Your task to perform on an android device: see tabs open on other devices in the chrome app Image 0: 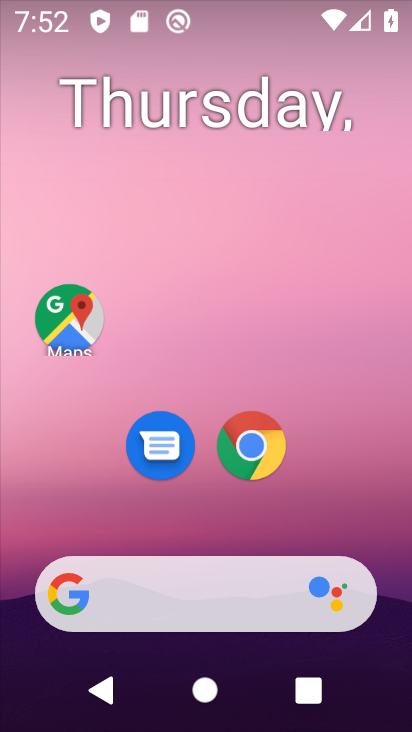
Step 0: click (259, 433)
Your task to perform on an android device: see tabs open on other devices in the chrome app Image 1: 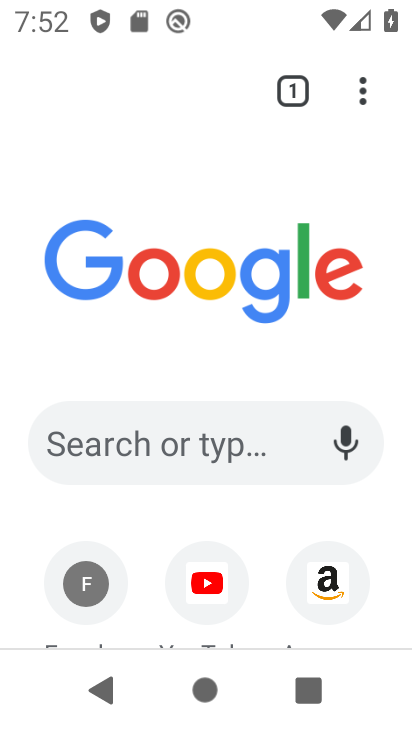
Step 1: click (297, 88)
Your task to perform on an android device: see tabs open on other devices in the chrome app Image 2: 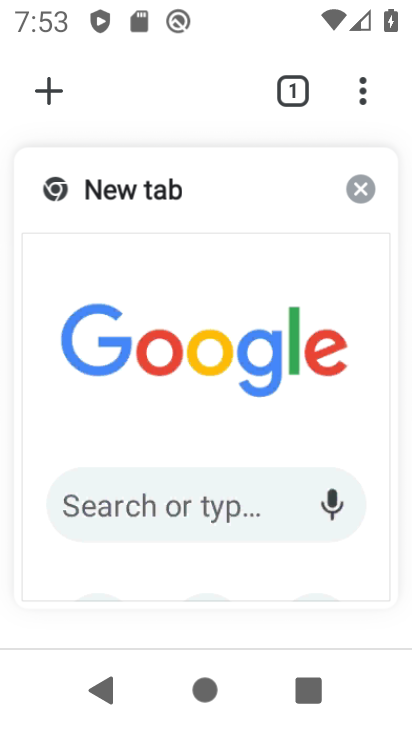
Step 2: click (302, 317)
Your task to perform on an android device: see tabs open on other devices in the chrome app Image 3: 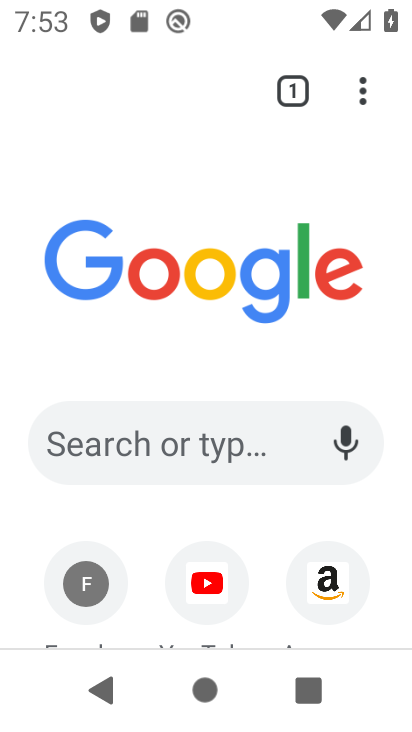
Step 3: task complete